Your task to perform on an android device: Search for the new nike air max 270 on Nike.com Image 0: 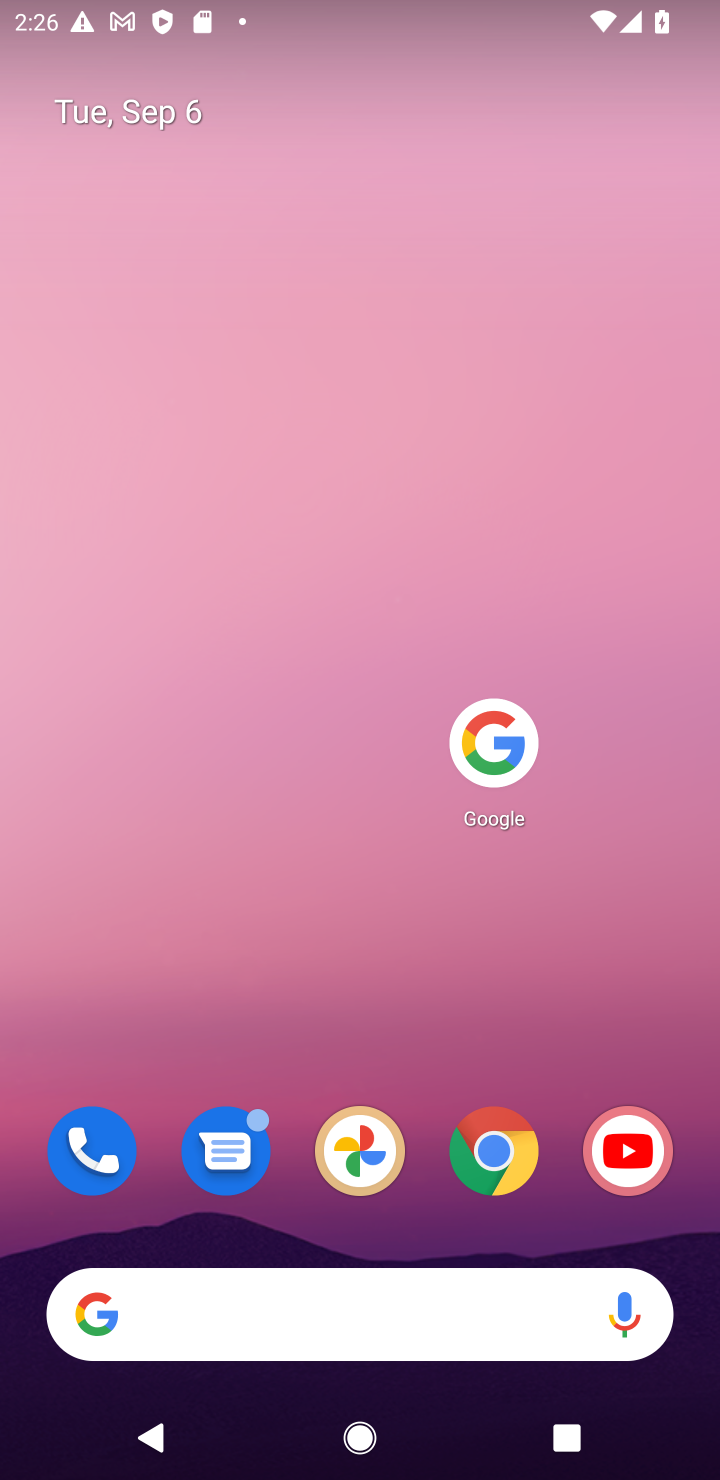
Step 0: click (512, 733)
Your task to perform on an android device: Search for the new nike air max 270 on Nike.com Image 1: 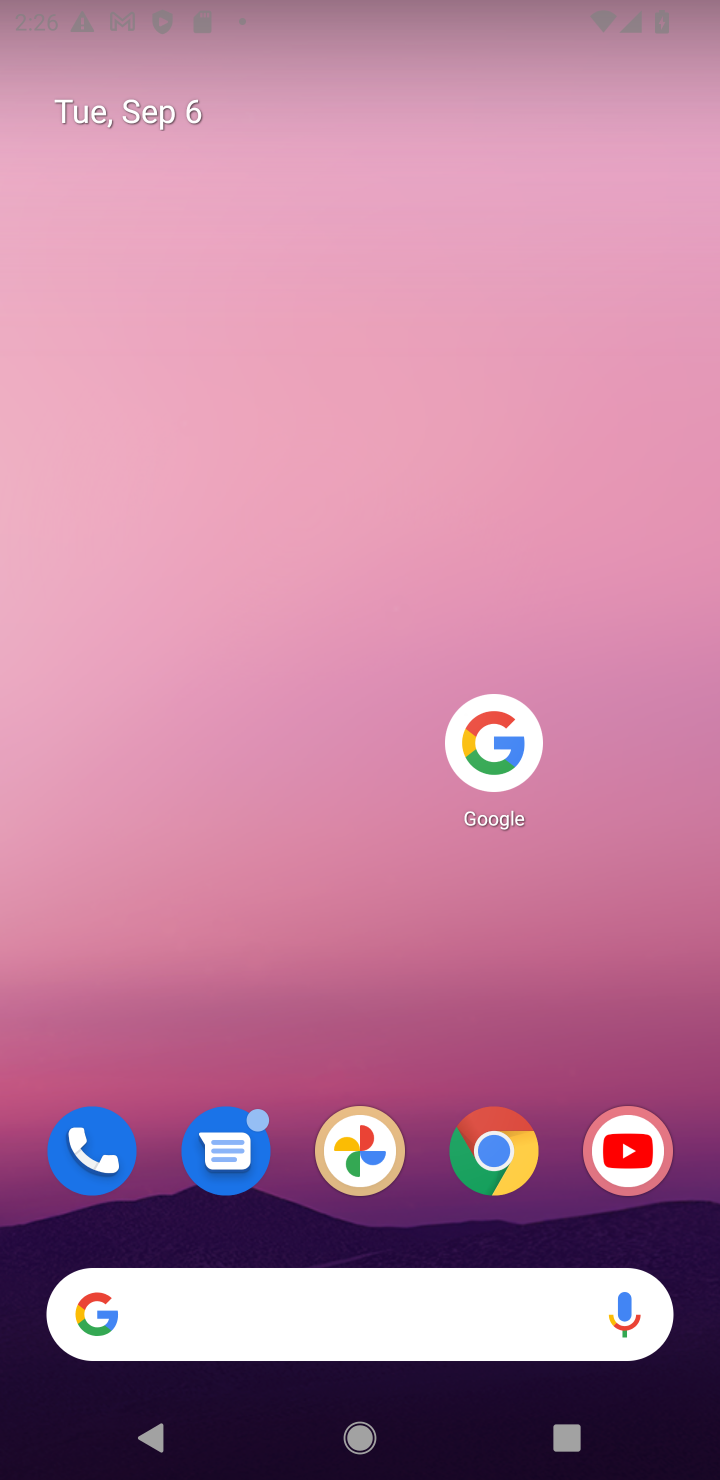
Step 1: click (512, 733)
Your task to perform on an android device: Search for the new nike air max 270 on Nike.com Image 2: 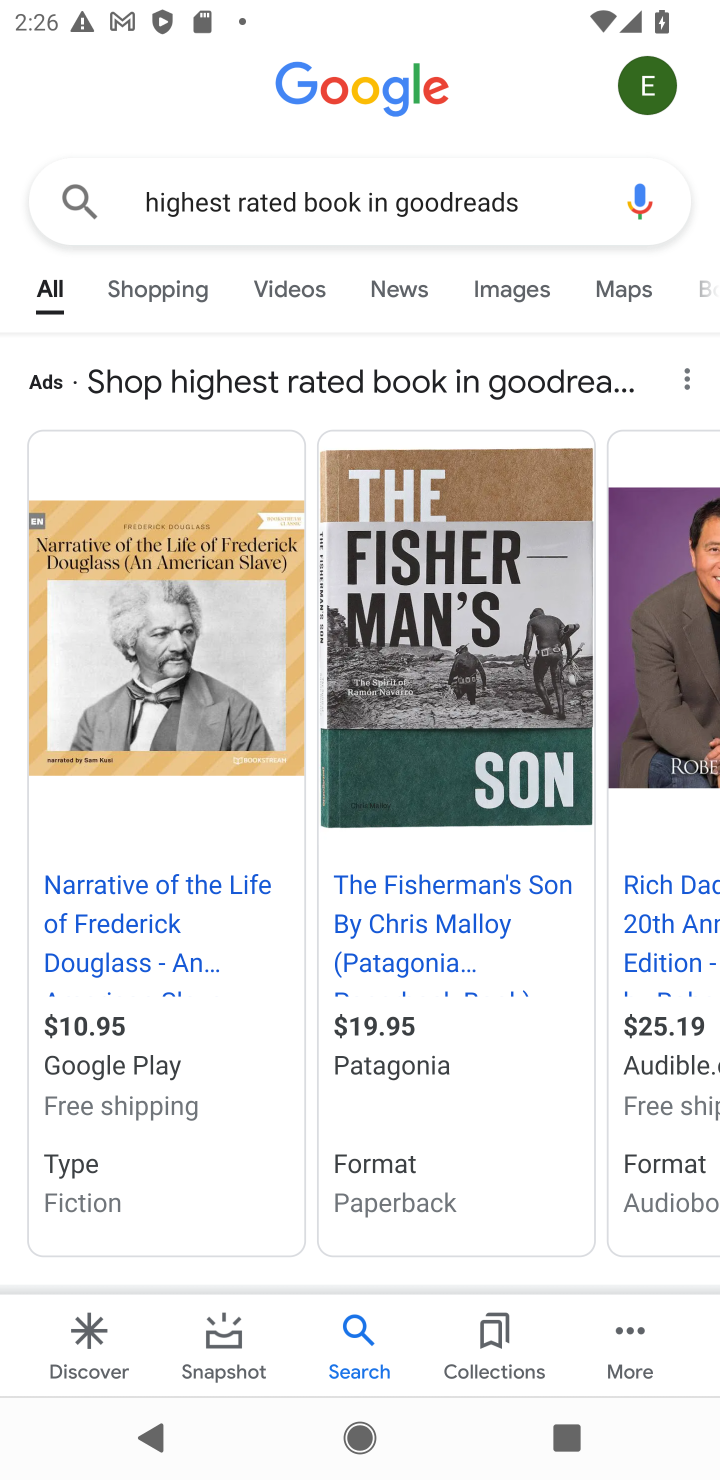
Step 2: click (483, 178)
Your task to perform on an android device: Search for the new nike air max 270 on Nike.com Image 3: 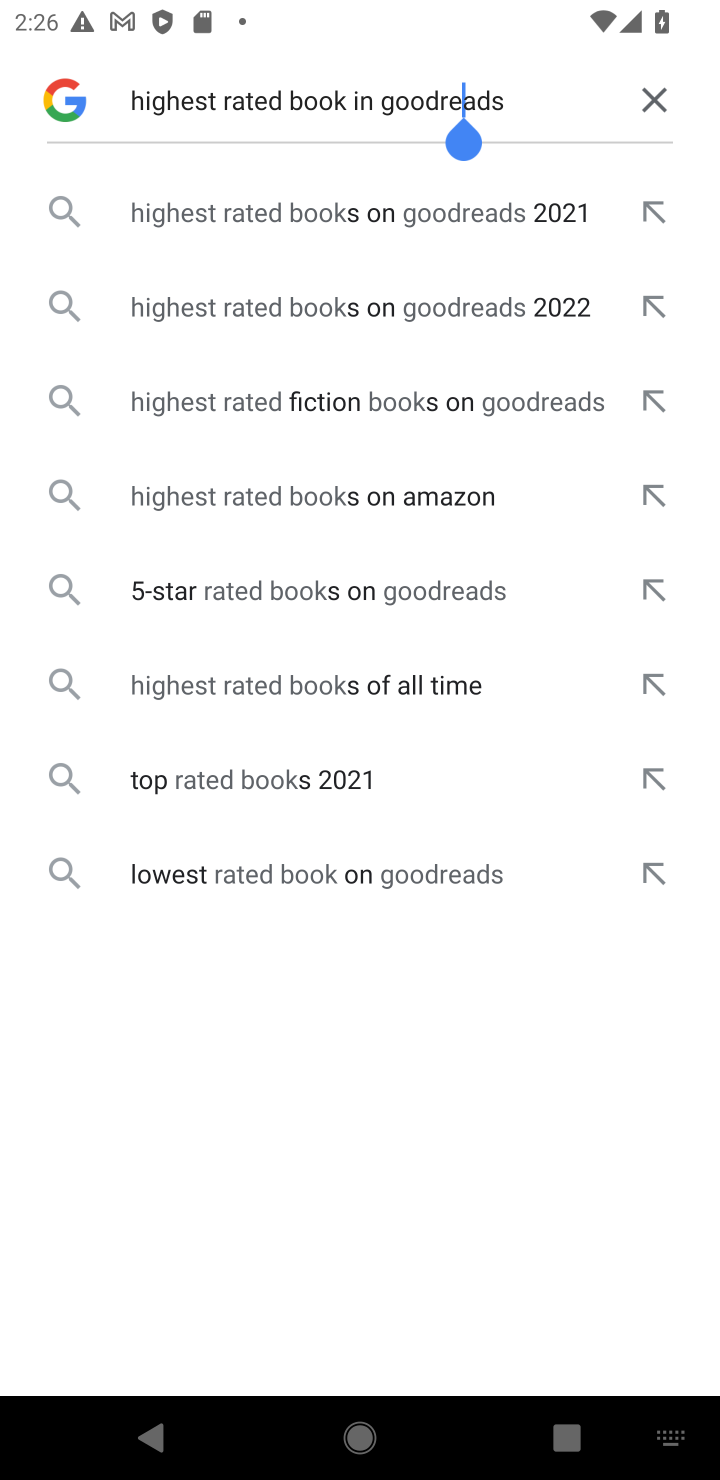
Step 3: click (664, 93)
Your task to perform on an android device: Search for the new nike air max 270 on Nike.com Image 4: 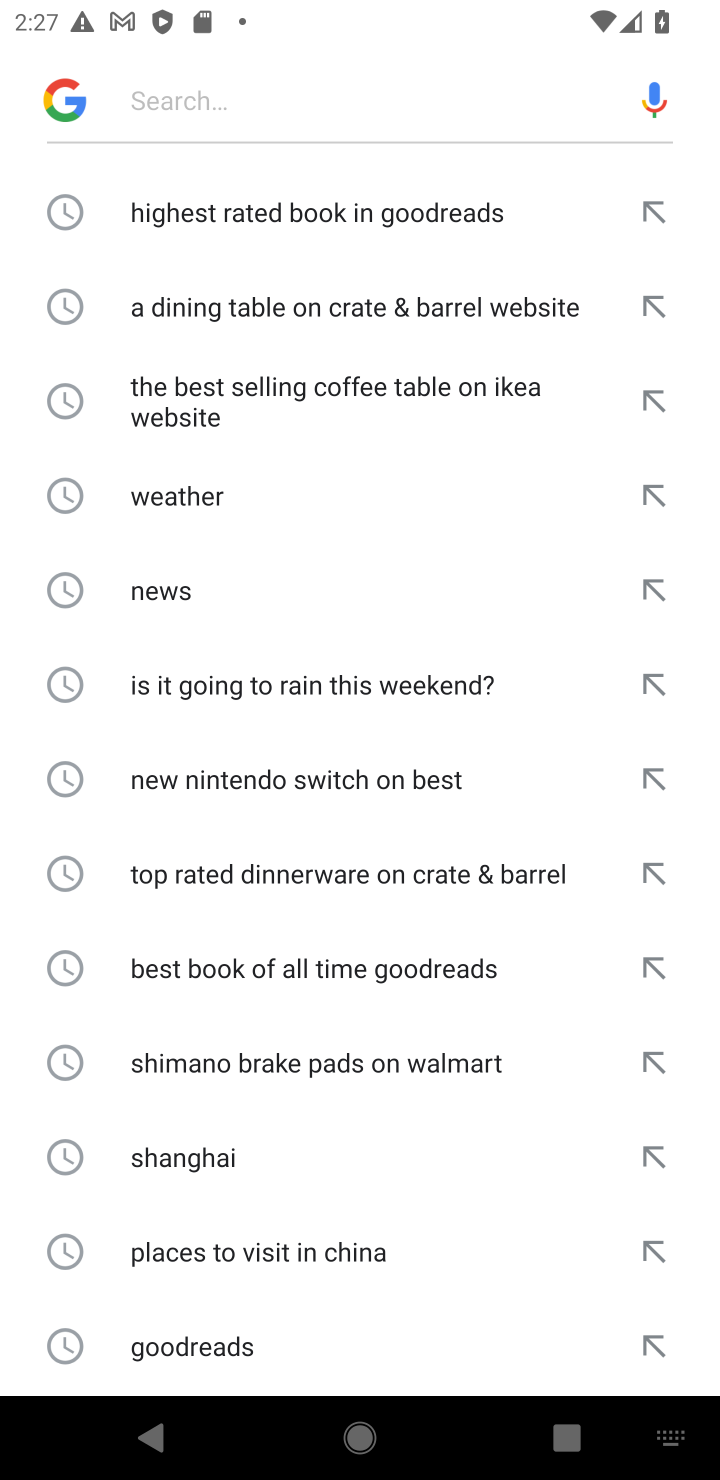
Step 4: click (297, 74)
Your task to perform on an android device: Search for the new nike air max 270 on Nike.com Image 5: 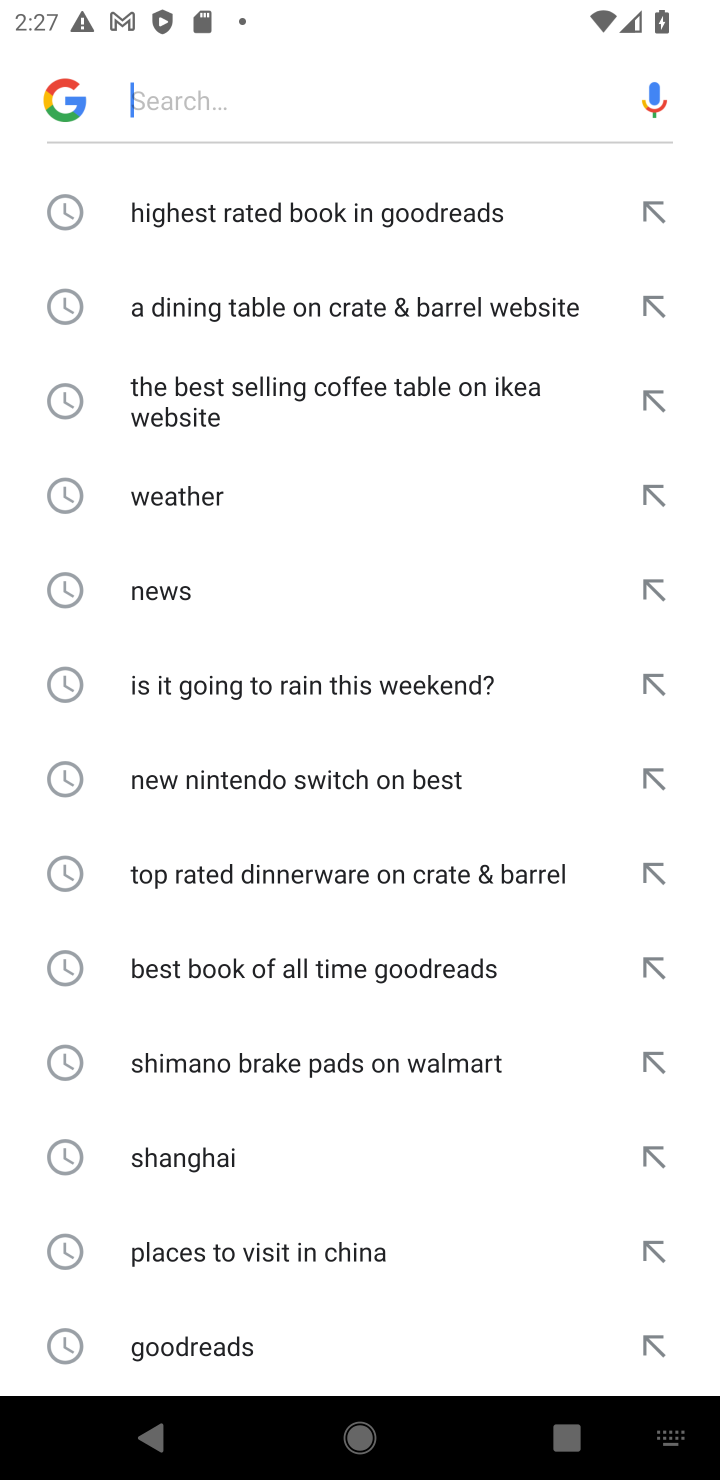
Step 5: type "the new nike air max 270 on Nike.com "
Your task to perform on an android device: Search for the new nike air max 270 on Nike.com Image 6: 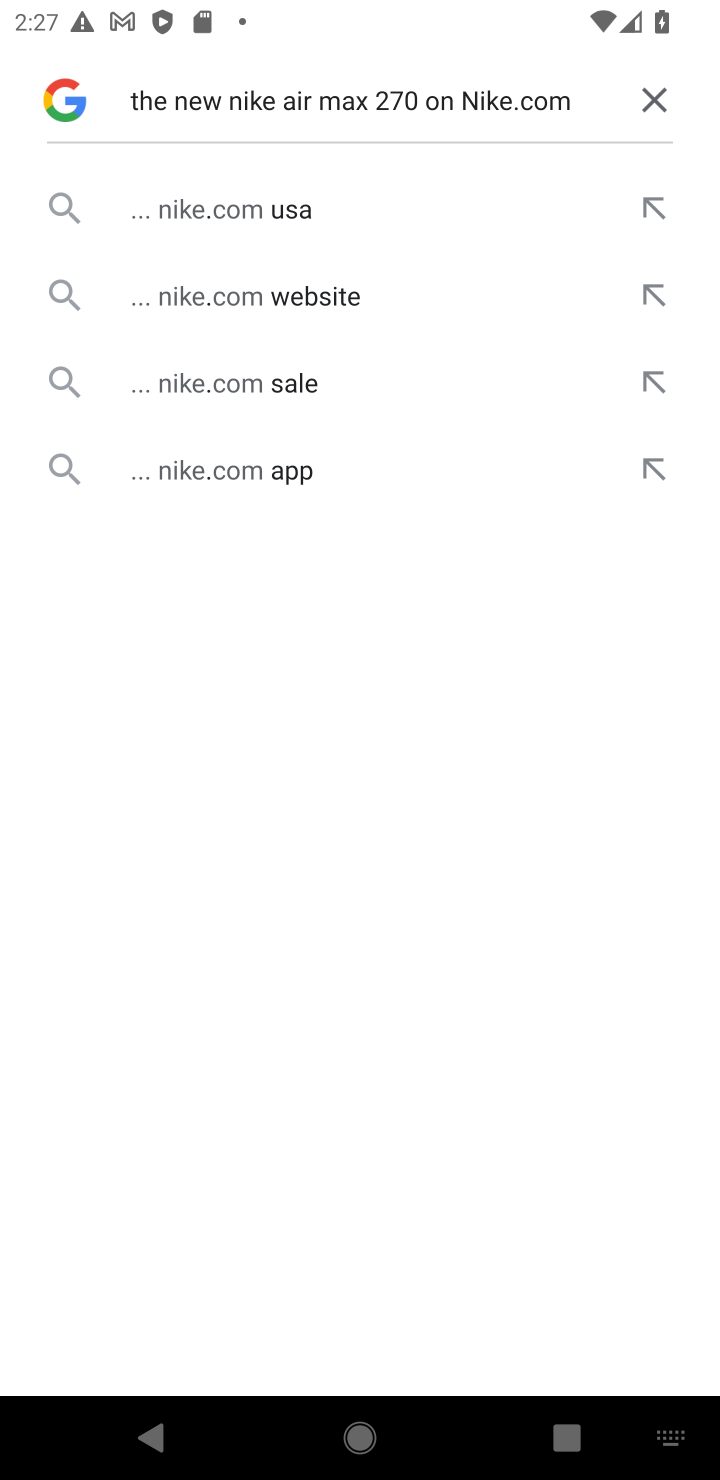
Step 6: click (128, 200)
Your task to perform on an android device: Search for the new nike air max 270 on Nike.com Image 7: 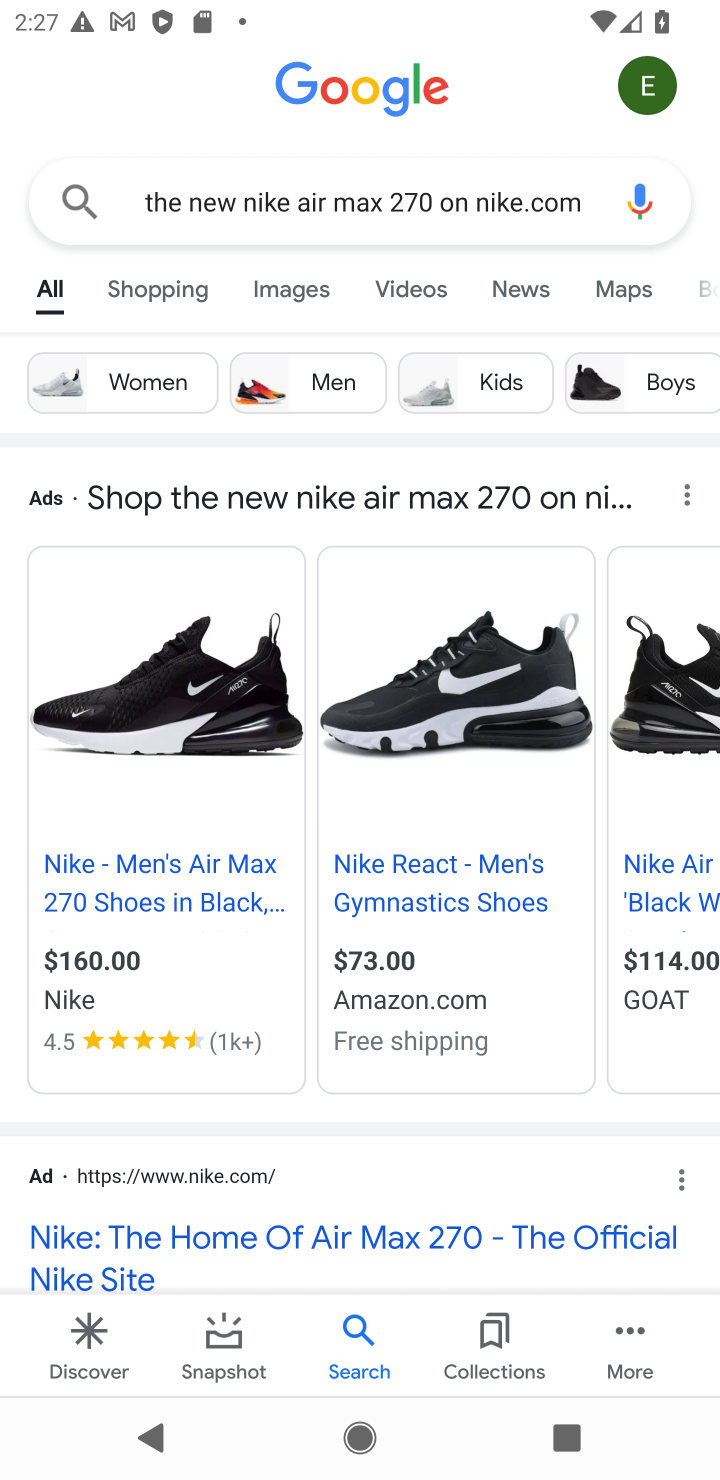
Step 7: task complete